Your task to perform on an android device: turn on airplane mode Image 0: 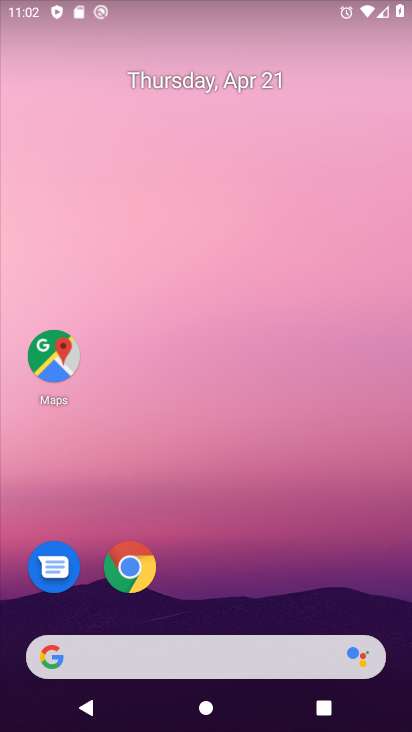
Step 0: drag from (207, 601) to (231, 0)
Your task to perform on an android device: turn on airplane mode Image 1: 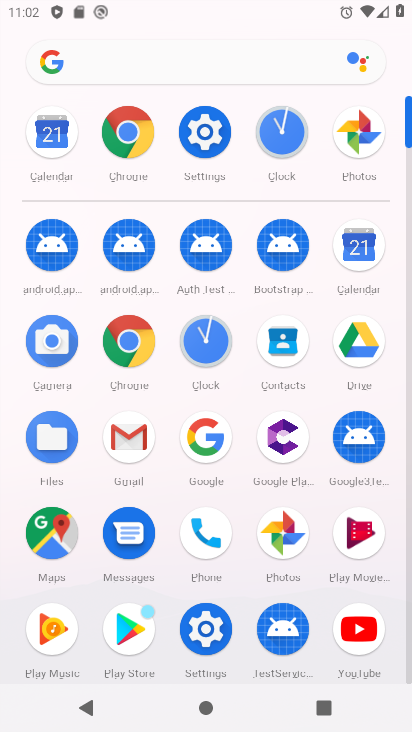
Step 1: click (199, 629)
Your task to perform on an android device: turn on airplane mode Image 2: 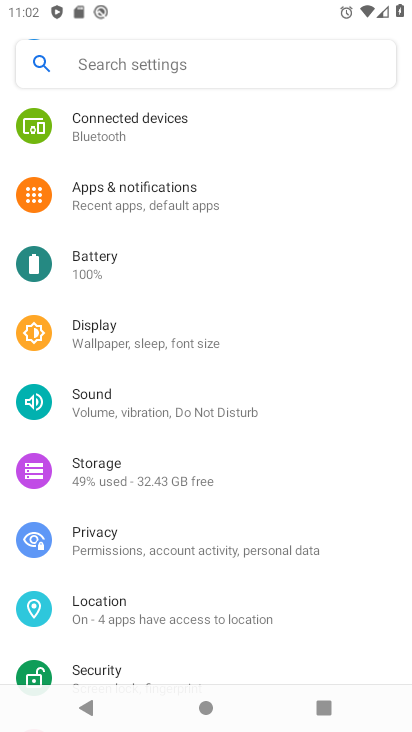
Step 2: drag from (144, 151) to (141, 470)
Your task to perform on an android device: turn on airplane mode Image 3: 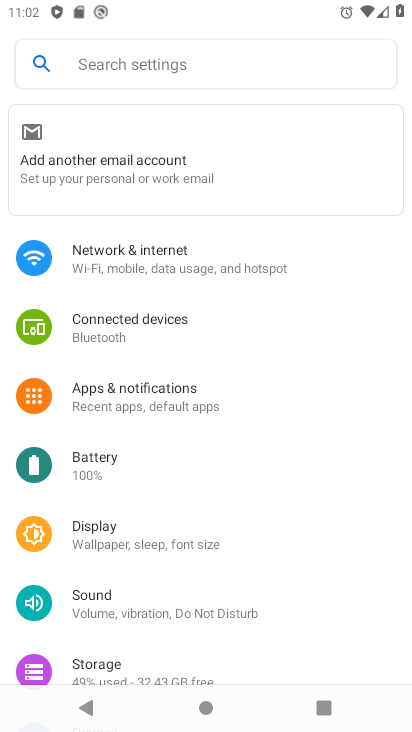
Step 3: click (114, 275)
Your task to perform on an android device: turn on airplane mode Image 4: 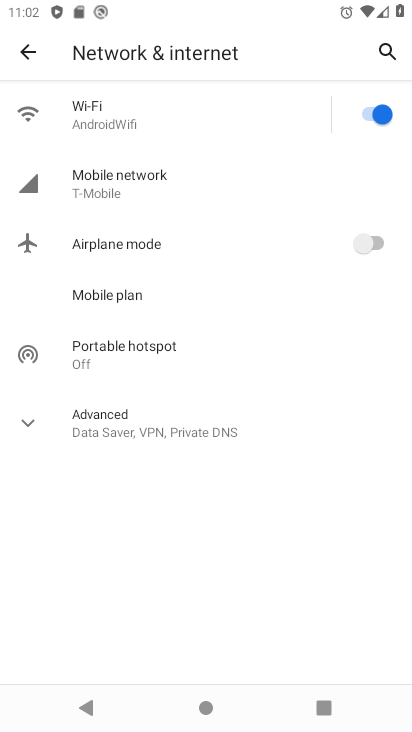
Step 4: click (381, 242)
Your task to perform on an android device: turn on airplane mode Image 5: 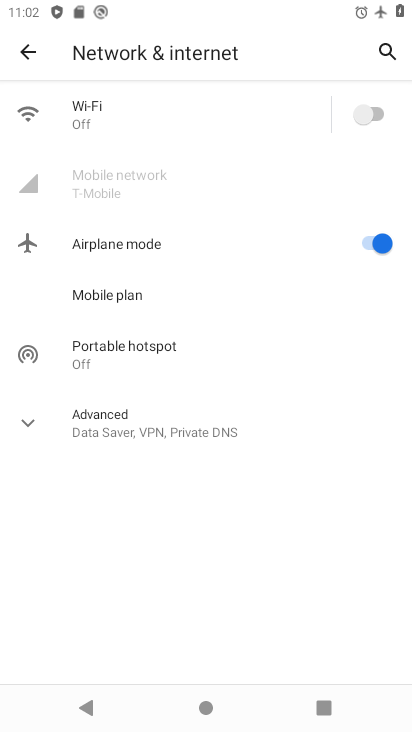
Step 5: task complete